Your task to perform on an android device: Search for the most popular books on Goodreads Image 0: 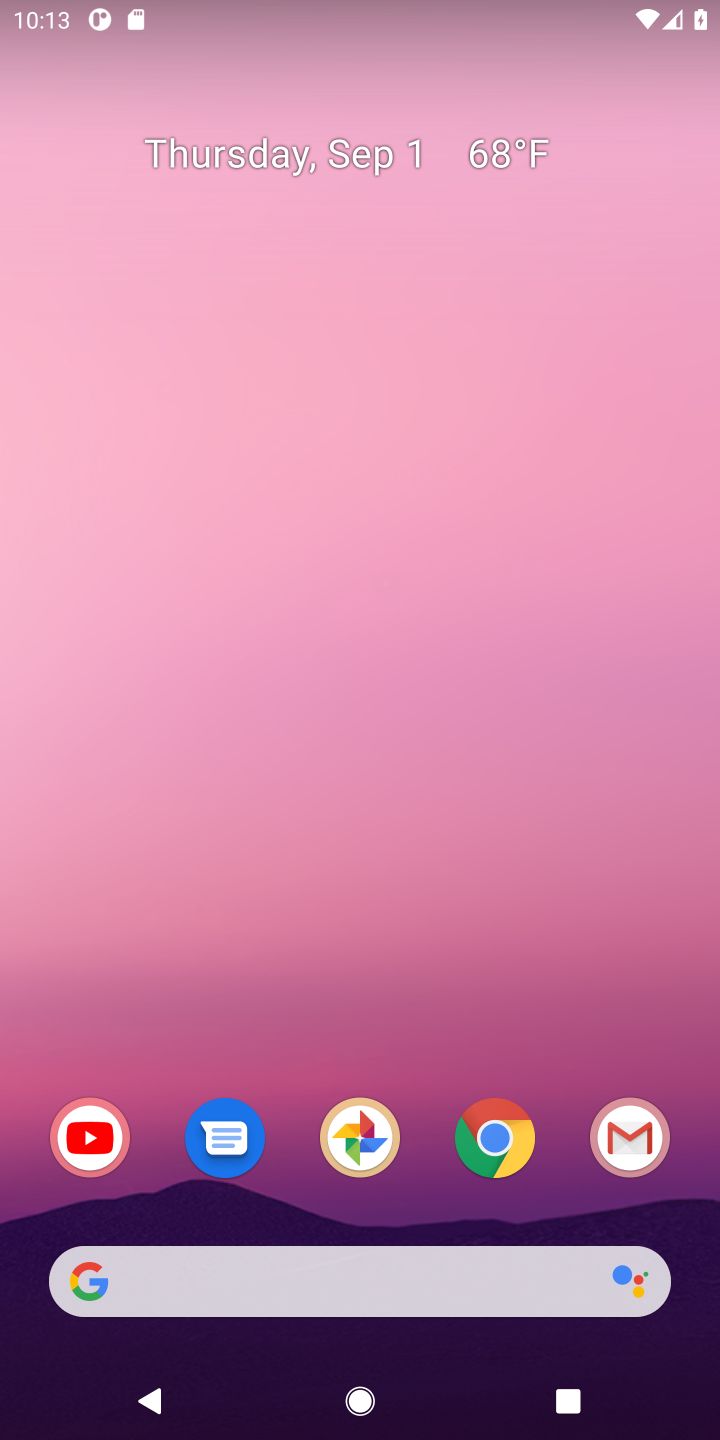
Step 0: click (418, 1281)
Your task to perform on an android device: Search for the most popular books on Goodreads Image 1: 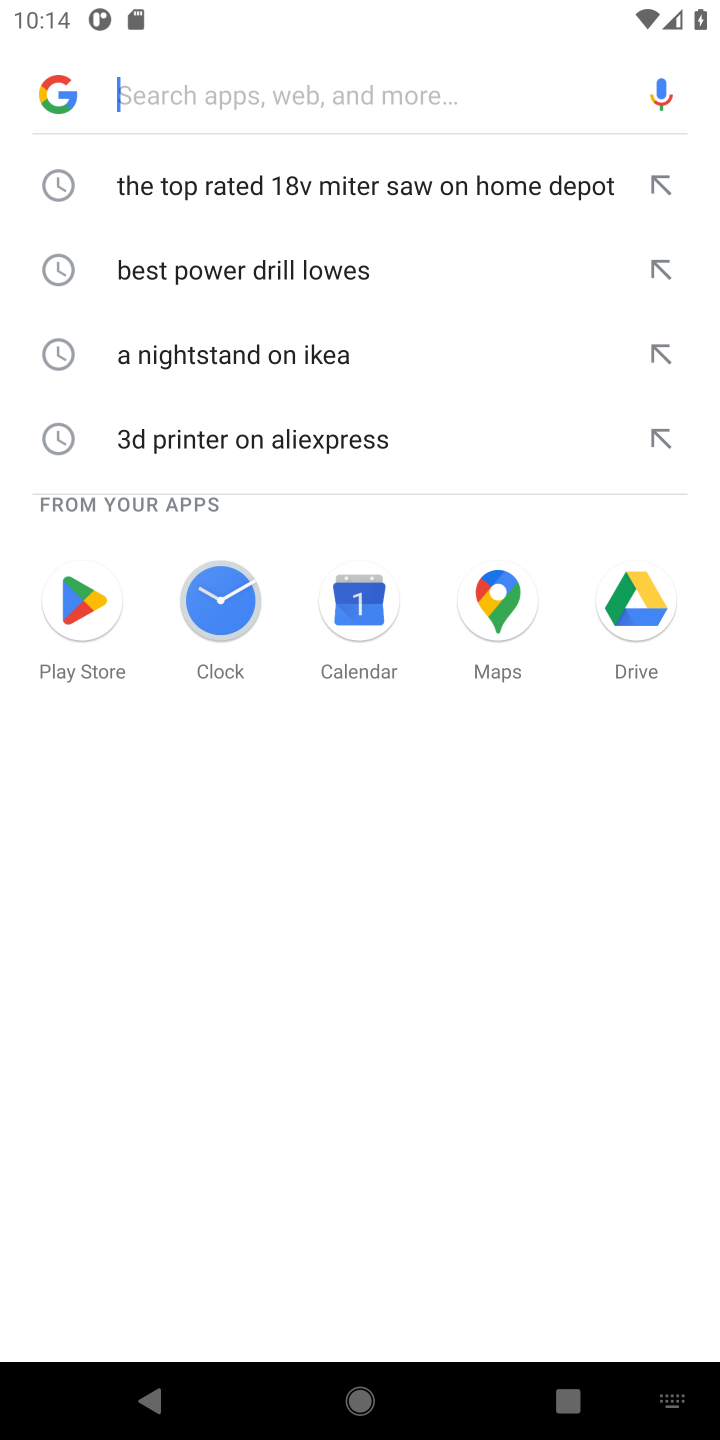
Step 1: type "the most popular books on Goodreads"
Your task to perform on an android device: Search for the most popular books on Goodreads Image 2: 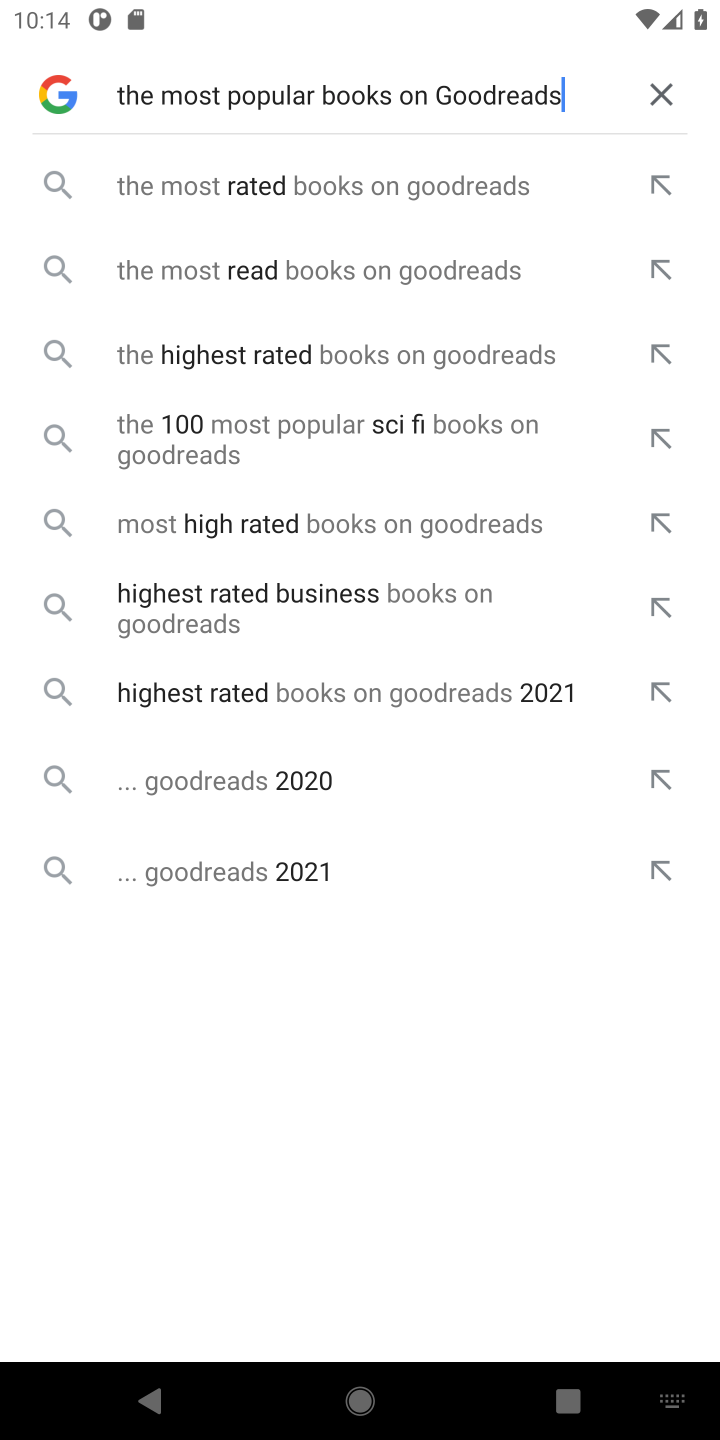
Step 2: click (456, 182)
Your task to perform on an android device: Search for the most popular books on Goodreads Image 3: 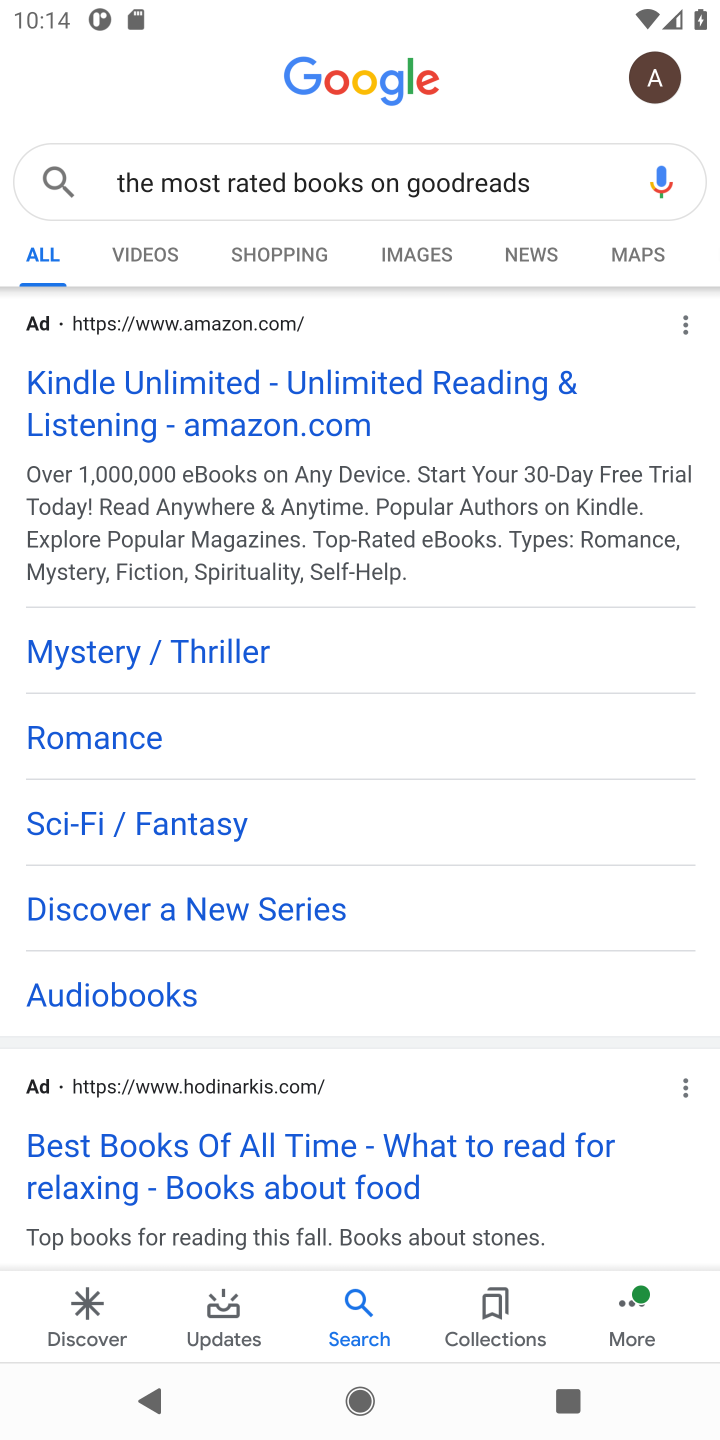
Step 3: task complete